Your task to perform on an android device: Check the news Image 0: 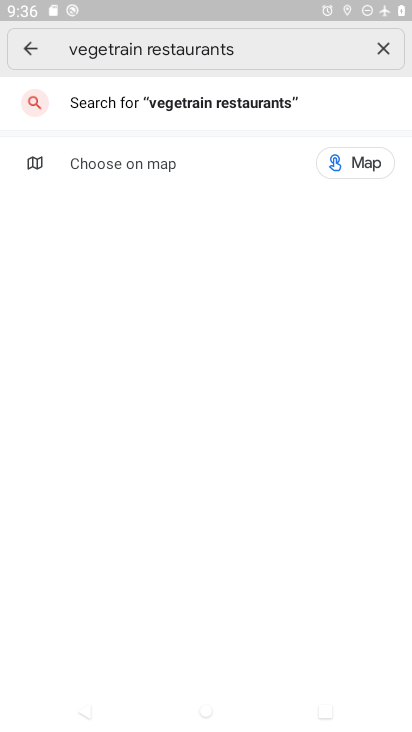
Step 0: press home button
Your task to perform on an android device: Check the news Image 1: 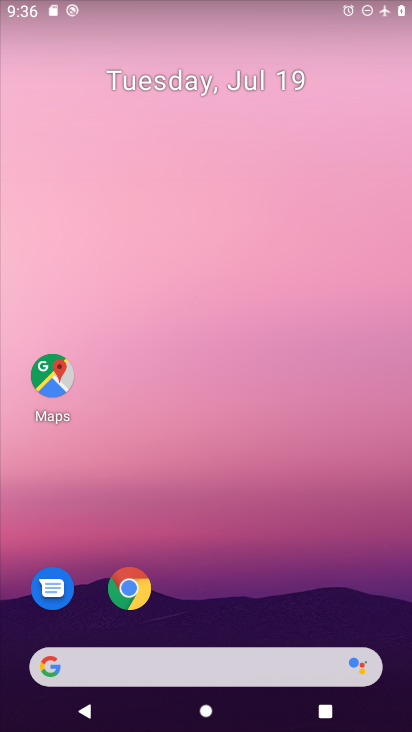
Step 1: task complete